Your task to perform on an android device: turn on the 24-hour format for clock Image 0: 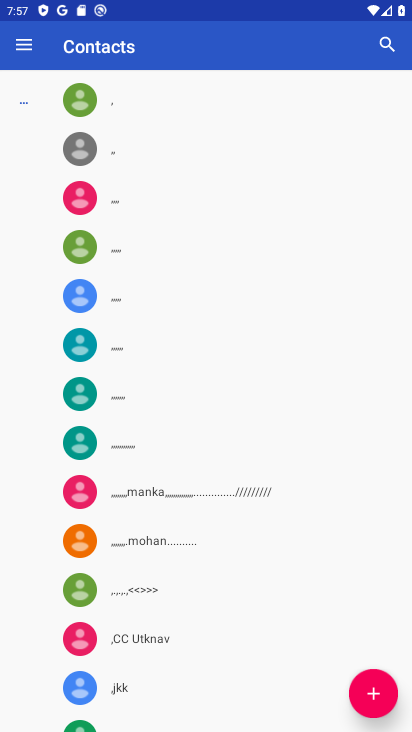
Step 0: press home button
Your task to perform on an android device: turn on the 24-hour format for clock Image 1: 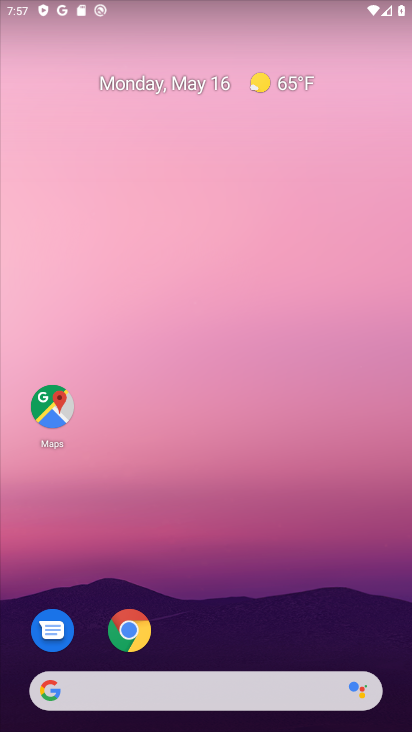
Step 1: drag from (199, 651) to (193, 205)
Your task to perform on an android device: turn on the 24-hour format for clock Image 2: 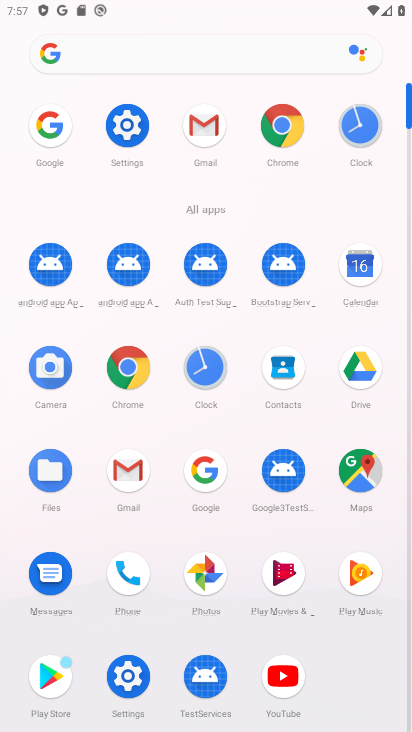
Step 2: click (346, 128)
Your task to perform on an android device: turn on the 24-hour format for clock Image 3: 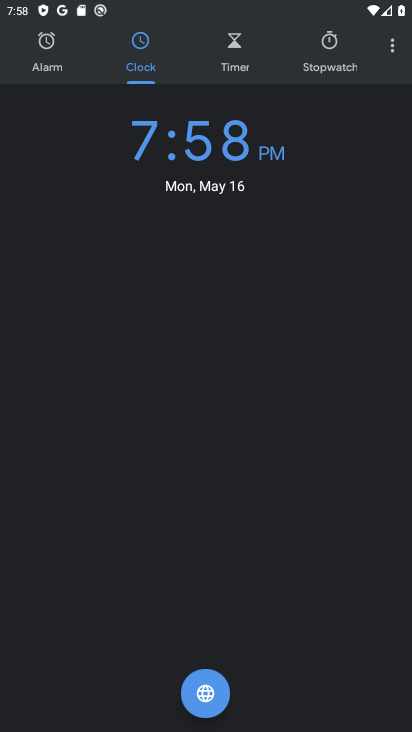
Step 3: click (389, 49)
Your task to perform on an android device: turn on the 24-hour format for clock Image 4: 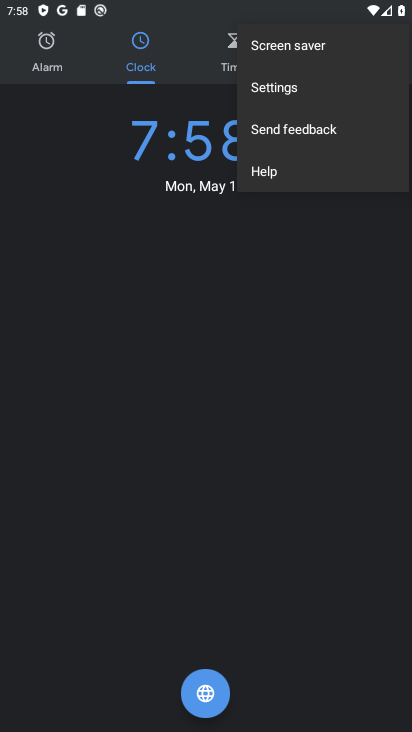
Step 4: click (288, 92)
Your task to perform on an android device: turn on the 24-hour format for clock Image 5: 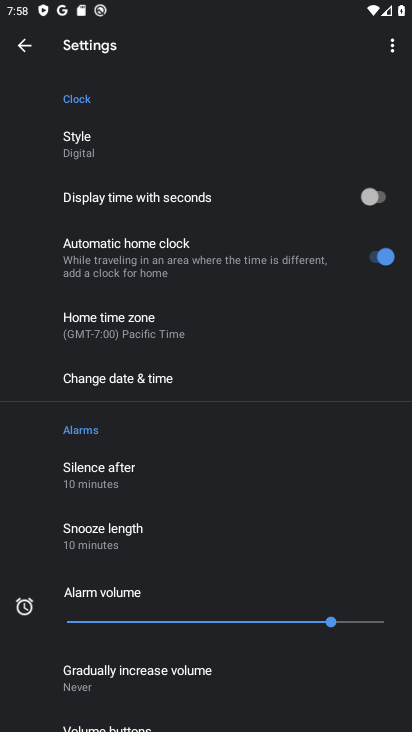
Step 5: click (182, 370)
Your task to perform on an android device: turn on the 24-hour format for clock Image 6: 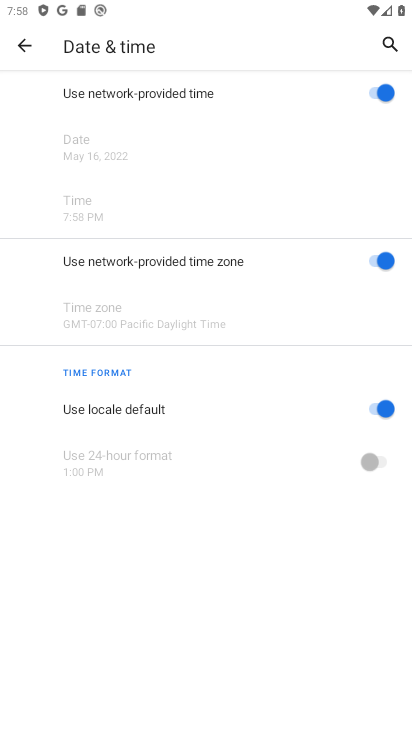
Step 6: click (369, 407)
Your task to perform on an android device: turn on the 24-hour format for clock Image 7: 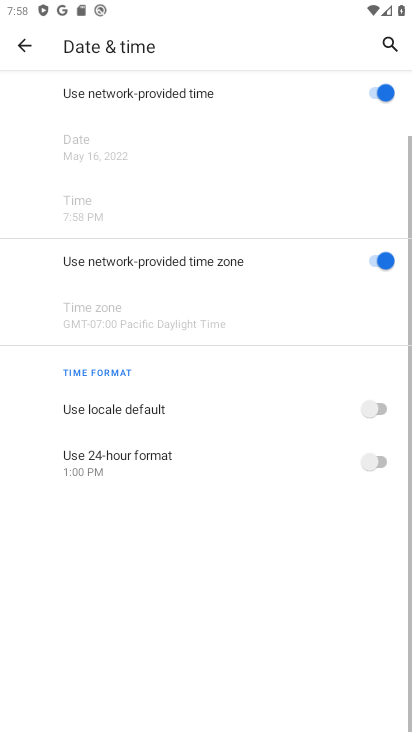
Step 7: click (373, 457)
Your task to perform on an android device: turn on the 24-hour format for clock Image 8: 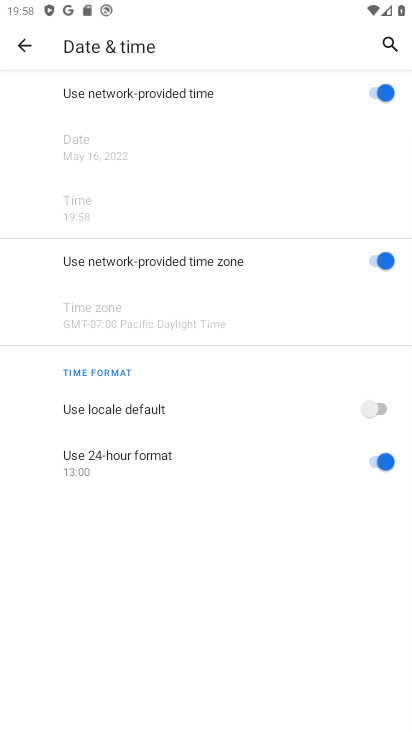
Step 8: task complete